Your task to perform on an android device: Open calendar and show me the first week of next month Image 0: 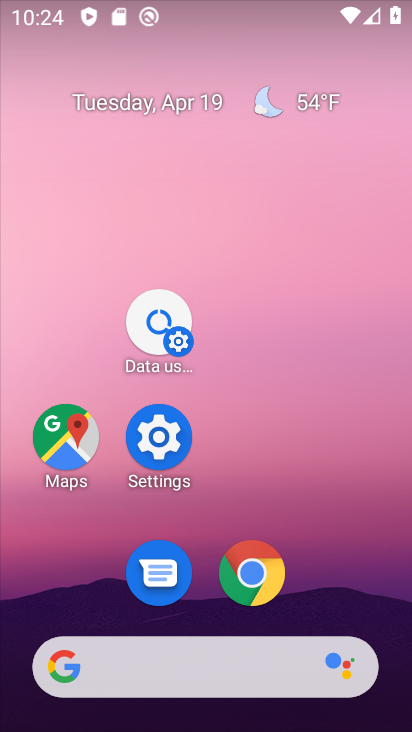
Step 0: drag from (369, 588) to (380, 0)
Your task to perform on an android device: Open calendar and show me the first week of next month Image 1: 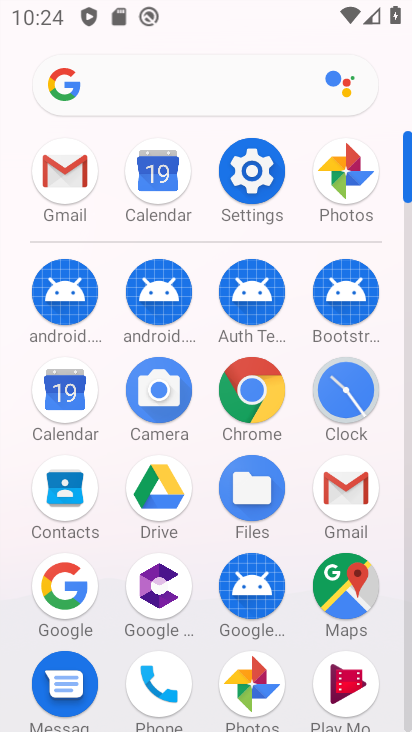
Step 1: click (162, 160)
Your task to perform on an android device: Open calendar and show me the first week of next month Image 2: 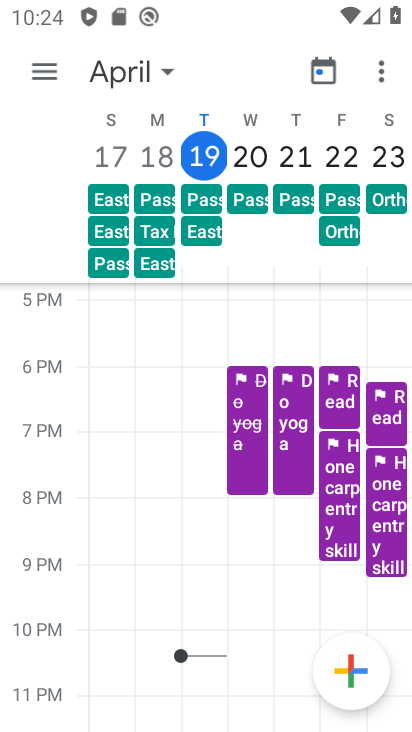
Step 2: click (252, 198)
Your task to perform on an android device: Open calendar and show me the first week of next month Image 3: 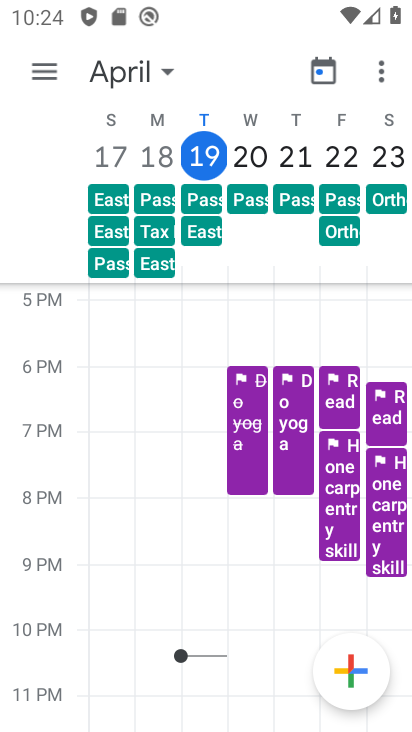
Step 3: click (166, 74)
Your task to perform on an android device: Open calendar and show me the first week of next month Image 4: 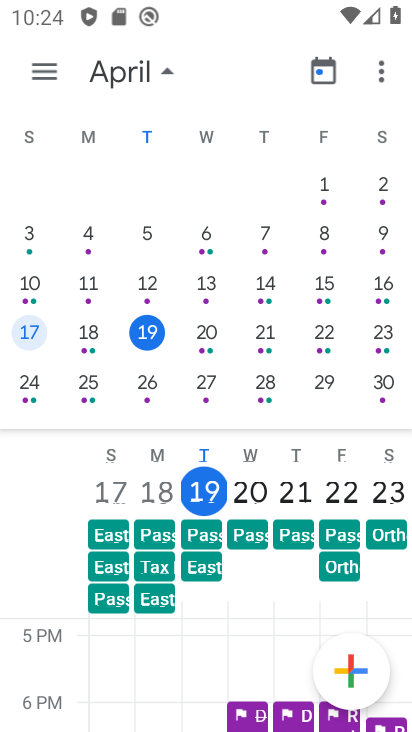
Step 4: task complete